Your task to perform on an android device: Open Youtube and go to the subscriptions tab Image 0: 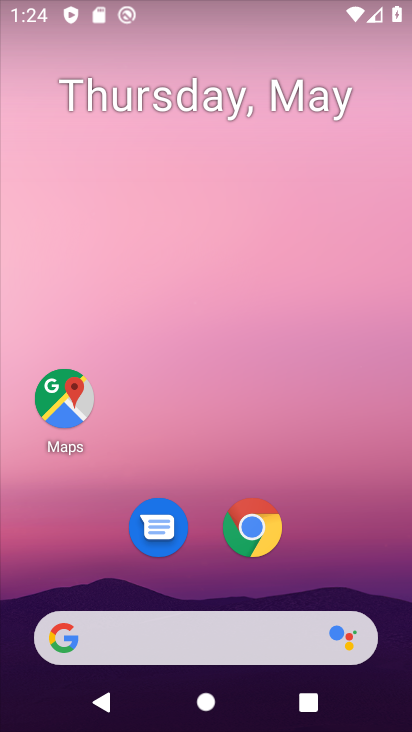
Step 0: drag from (230, 373) to (254, 58)
Your task to perform on an android device: Open Youtube and go to the subscriptions tab Image 1: 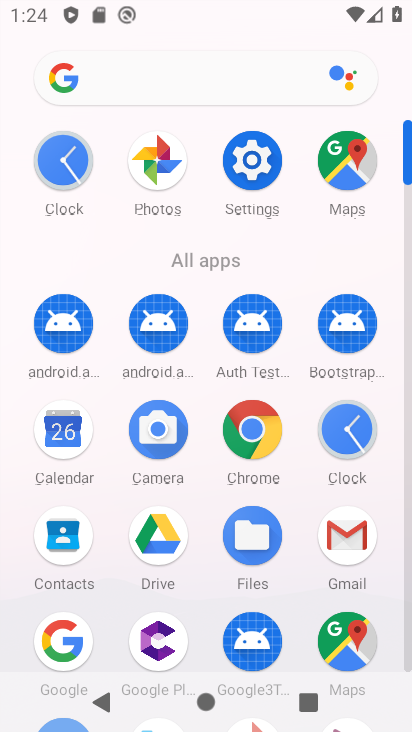
Step 1: drag from (207, 598) to (235, 56)
Your task to perform on an android device: Open Youtube and go to the subscriptions tab Image 2: 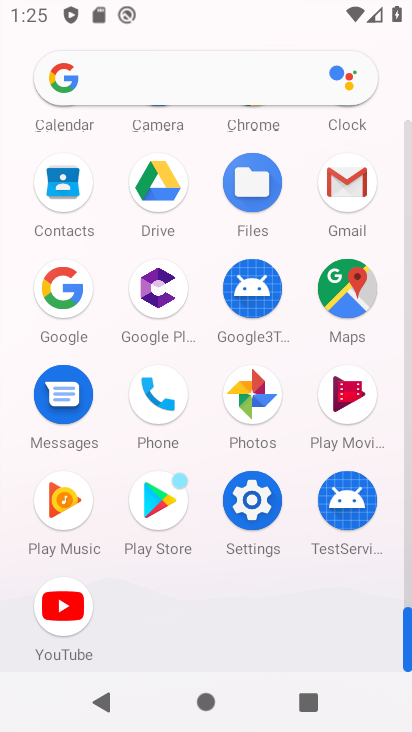
Step 2: click (51, 605)
Your task to perform on an android device: Open Youtube and go to the subscriptions tab Image 3: 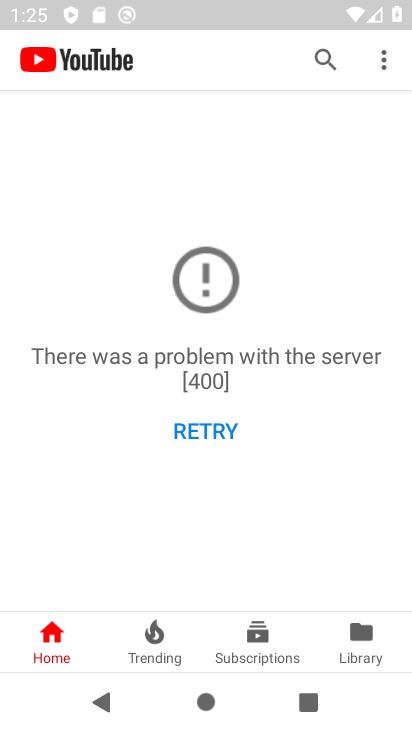
Step 3: click (255, 624)
Your task to perform on an android device: Open Youtube and go to the subscriptions tab Image 4: 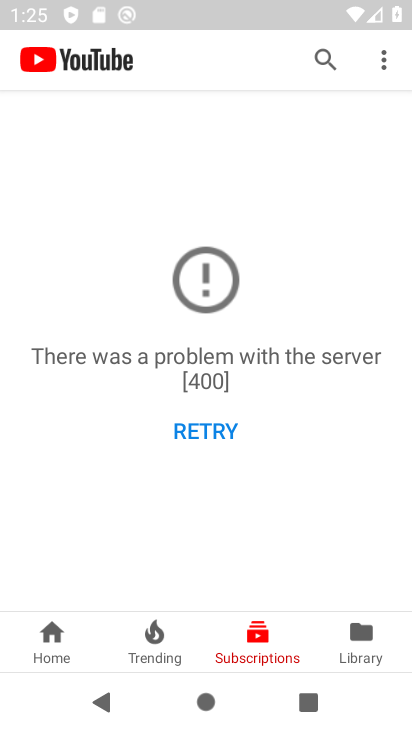
Step 4: task complete